Your task to perform on an android device: read, delete, or share a saved page in the chrome app Image 0: 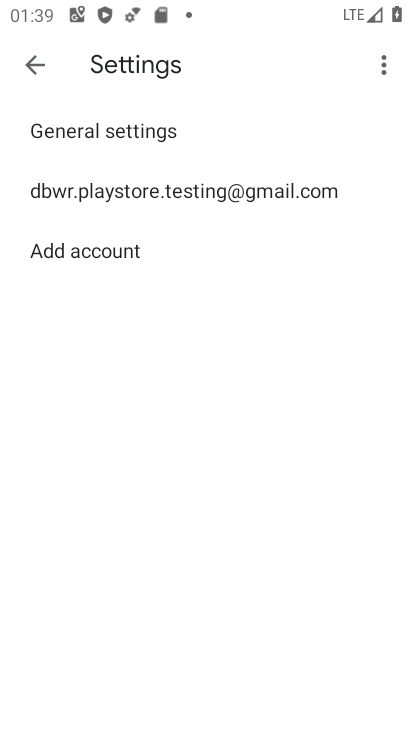
Step 0: press home button
Your task to perform on an android device: read, delete, or share a saved page in the chrome app Image 1: 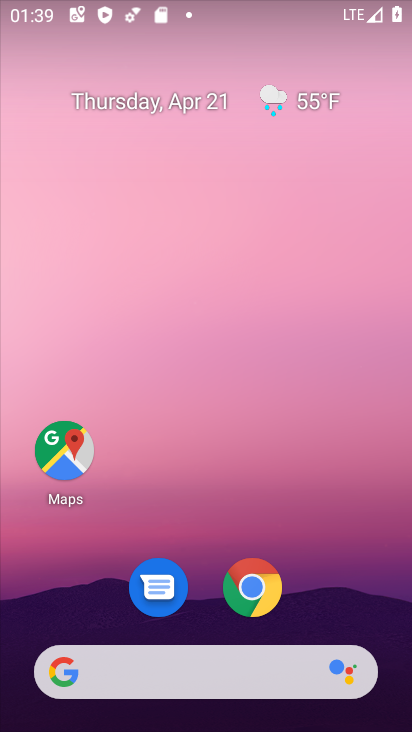
Step 1: press home button
Your task to perform on an android device: read, delete, or share a saved page in the chrome app Image 2: 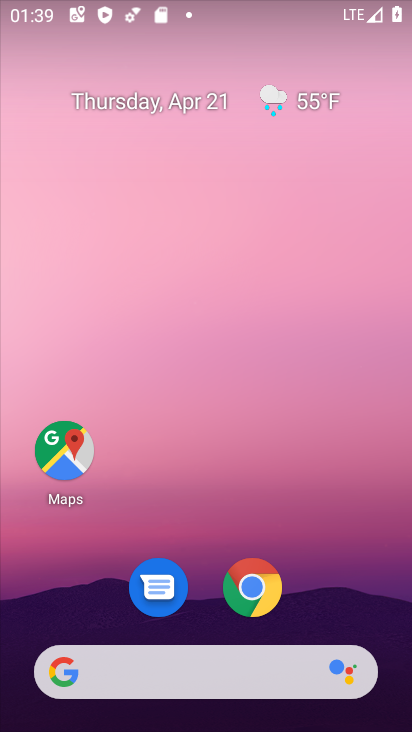
Step 2: press home button
Your task to perform on an android device: read, delete, or share a saved page in the chrome app Image 3: 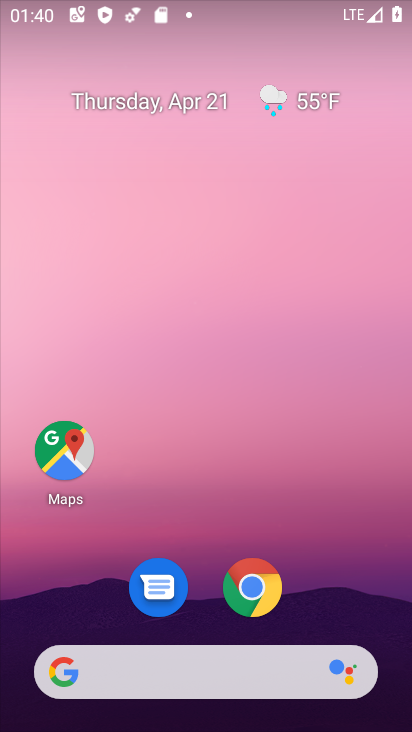
Step 3: click (256, 584)
Your task to perform on an android device: read, delete, or share a saved page in the chrome app Image 4: 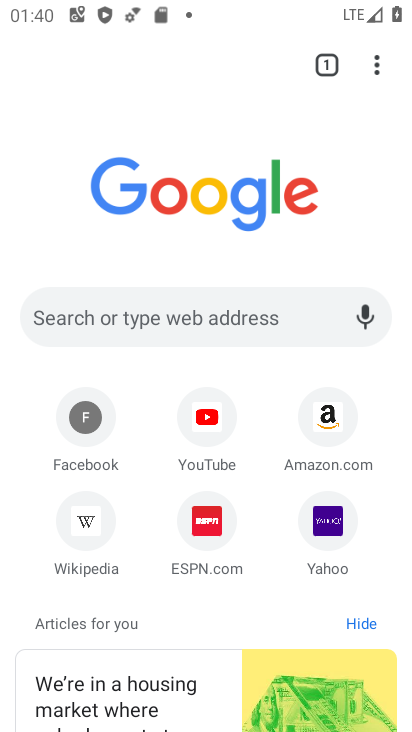
Step 4: click (376, 77)
Your task to perform on an android device: read, delete, or share a saved page in the chrome app Image 5: 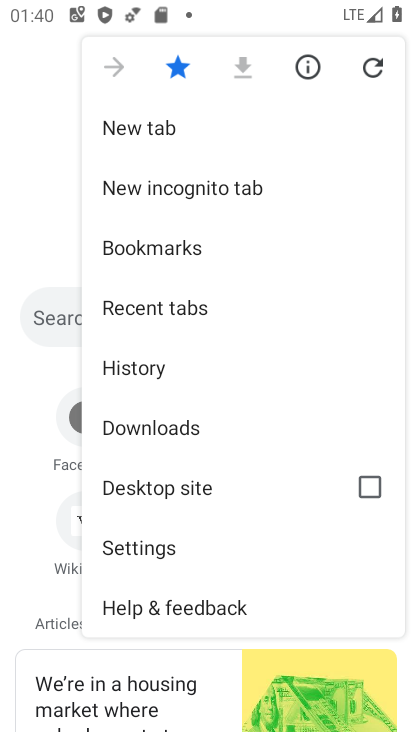
Step 5: click (149, 418)
Your task to perform on an android device: read, delete, or share a saved page in the chrome app Image 6: 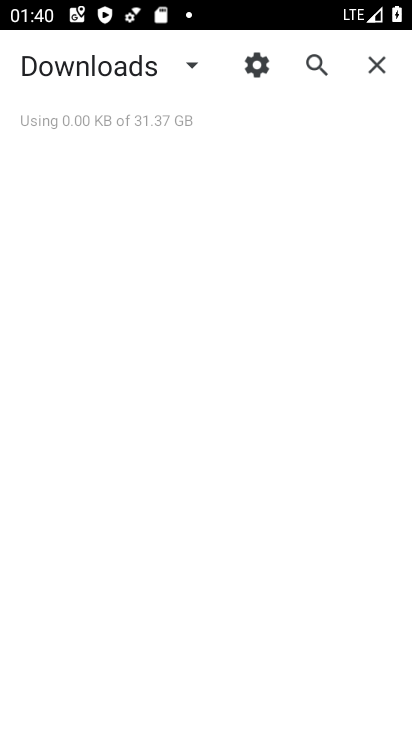
Step 6: click (185, 64)
Your task to perform on an android device: read, delete, or share a saved page in the chrome app Image 7: 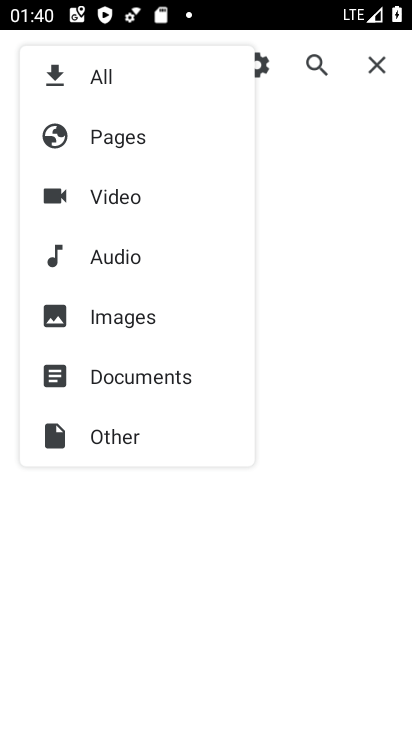
Step 7: click (108, 134)
Your task to perform on an android device: read, delete, or share a saved page in the chrome app Image 8: 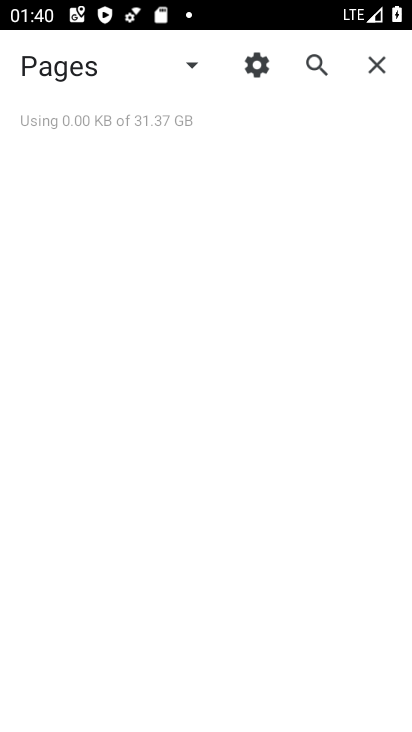
Step 8: task complete